Your task to perform on an android device: turn on javascript in the chrome app Image 0: 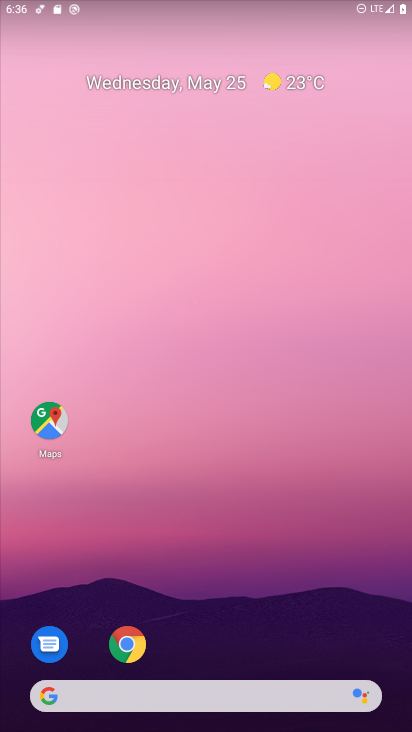
Step 0: drag from (373, 641) to (274, 0)
Your task to perform on an android device: turn on javascript in the chrome app Image 1: 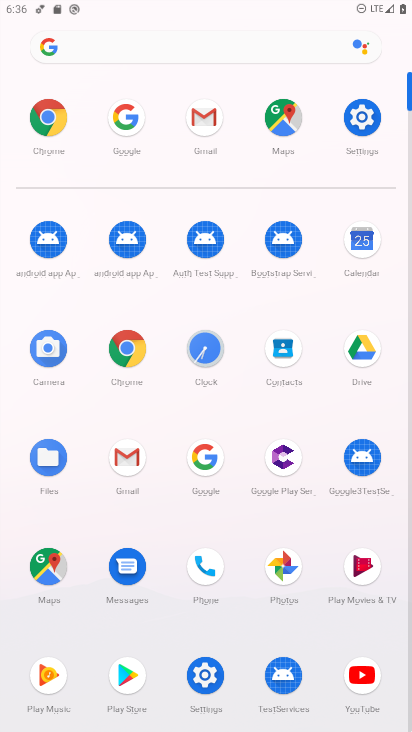
Step 1: click (106, 346)
Your task to perform on an android device: turn on javascript in the chrome app Image 2: 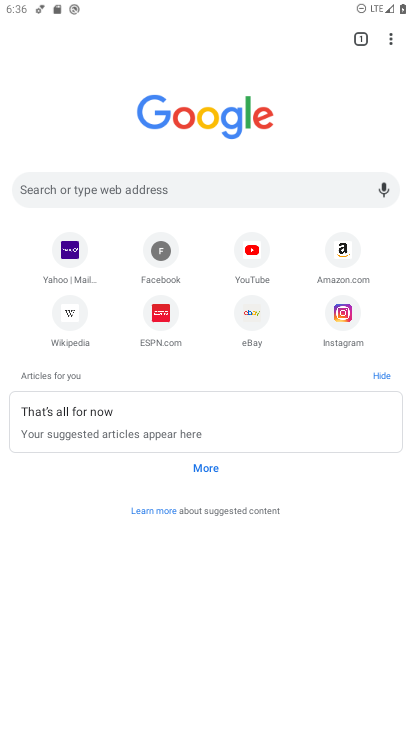
Step 2: click (396, 38)
Your task to perform on an android device: turn on javascript in the chrome app Image 3: 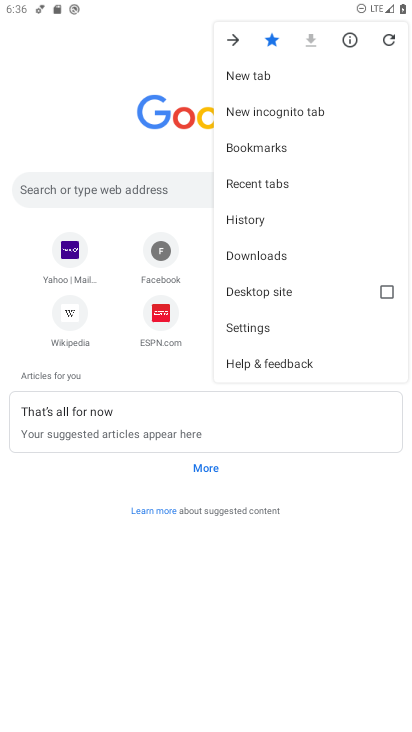
Step 3: click (268, 312)
Your task to perform on an android device: turn on javascript in the chrome app Image 4: 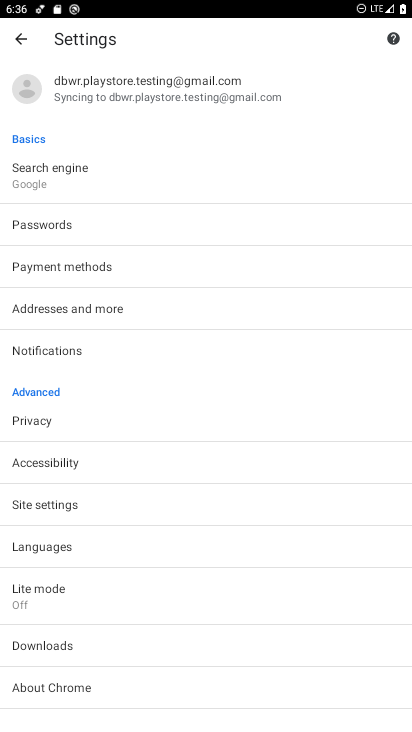
Step 4: click (69, 501)
Your task to perform on an android device: turn on javascript in the chrome app Image 5: 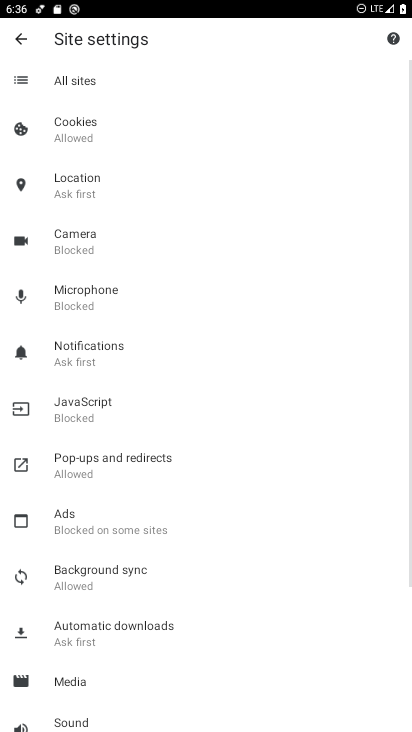
Step 5: click (97, 409)
Your task to perform on an android device: turn on javascript in the chrome app Image 6: 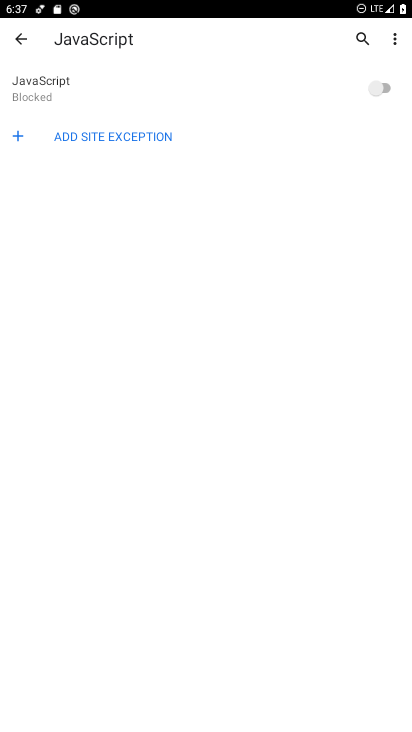
Step 6: click (265, 104)
Your task to perform on an android device: turn on javascript in the chrome app Image 7: 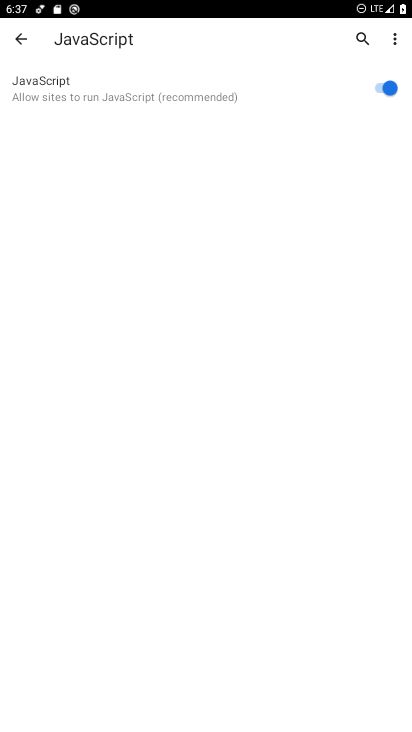
Step 7: task complete